Your task to perform on an android device: delete the emails in spam in the gmail app Image 0: 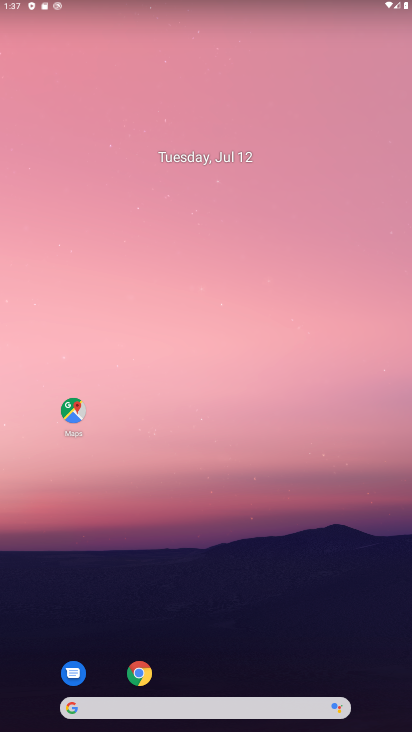
Step 0: drag from (192, 702) to (182, 422)
Your task to perform on an android device: delete the emails in spam in the gmail app Image 1: 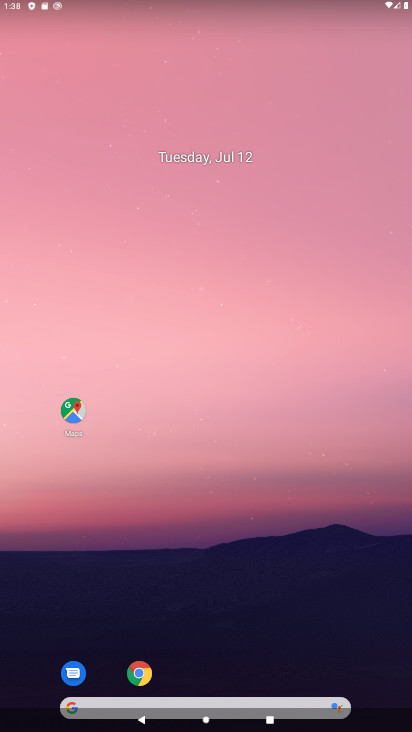
Step 1: drag from (280, 704) to (233, 361)
Your task to perform on an android device: delete the emails in spam in the gmail app Image 2: 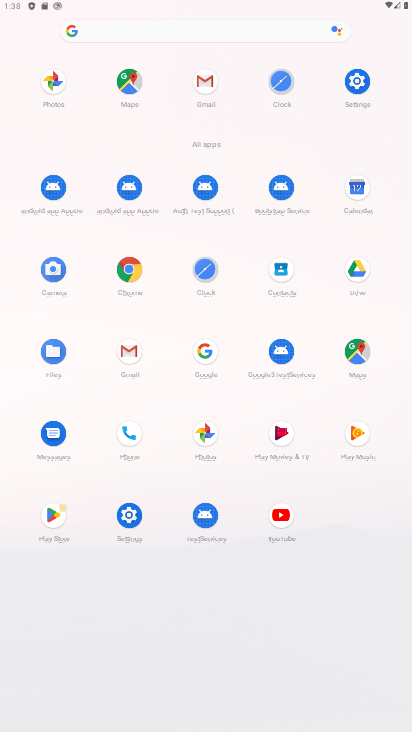
Step 2: click (211, 88)
Your task to perform on an android device: delete the emails in spam in the gmail app Image 3: 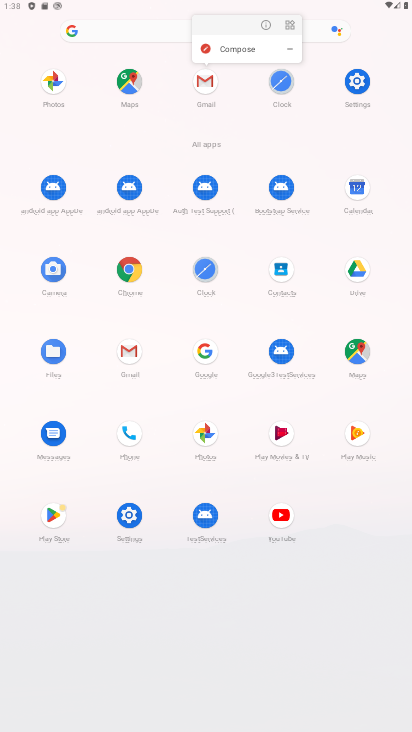
Step 3: click (202, 80)
Your task to perform on an android device: delete the emails in spam in the gmail app Image 4: 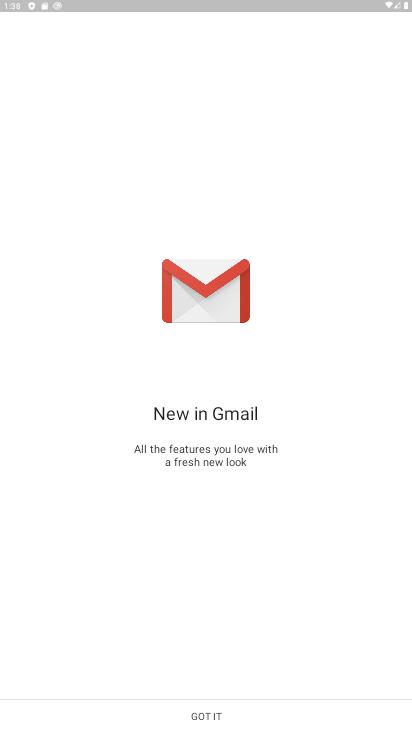
Step 4: click (221, 718)
Your task to perform on an android device: delete the emails in spam in the gmail app Image 5: 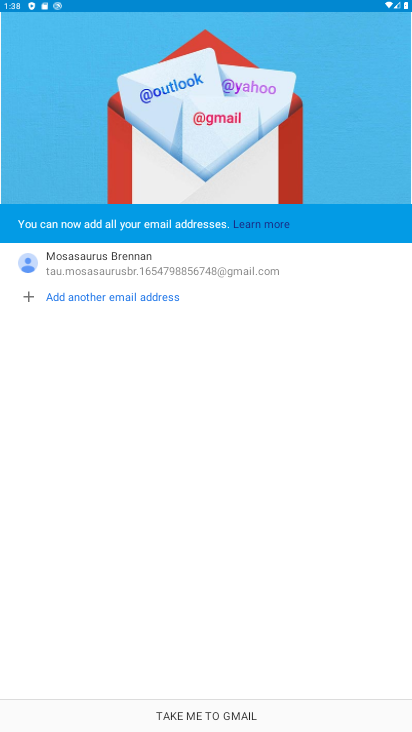
Step 5: click (220, 717)
Your task to perform on an android device: delete the emails in spam in the gmail app Image 6: 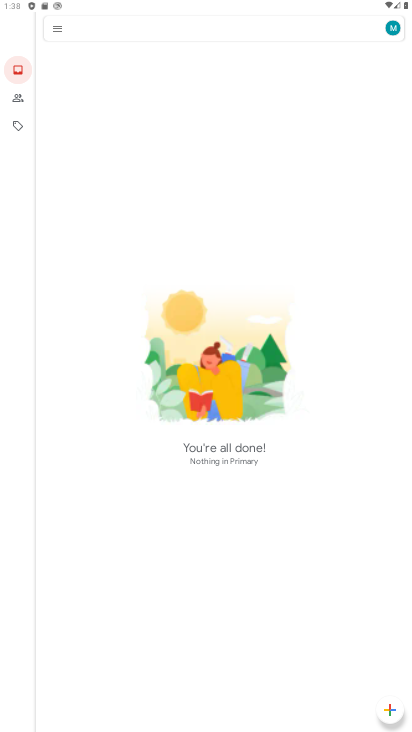
Step 6: click (58, 30)
Your task to perform on an android device: delete the emails in spam in the gmail app Image 7: 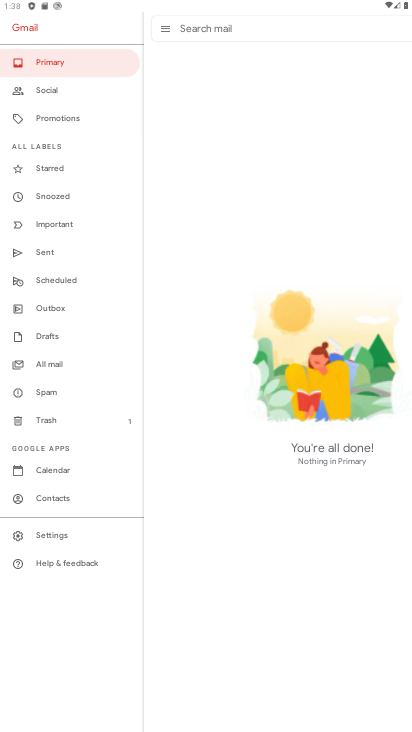
Step 7: click (49, 393)
Your task to perform on an android device: delete the emails in spam in the gmail app Image 8: 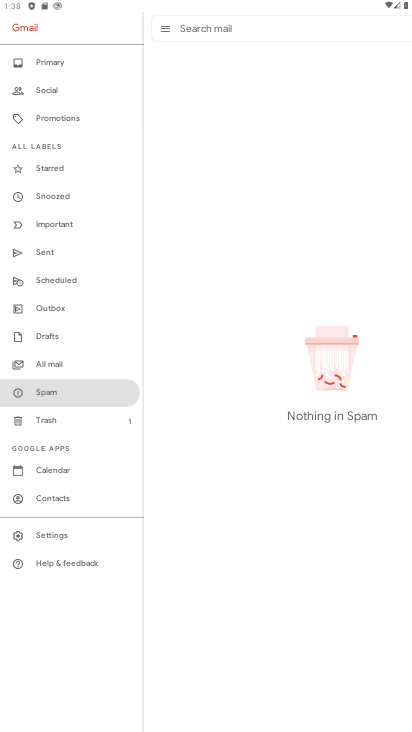
Step 8: task complete